Your task to perform on an android device: turn off wifi Image 0: 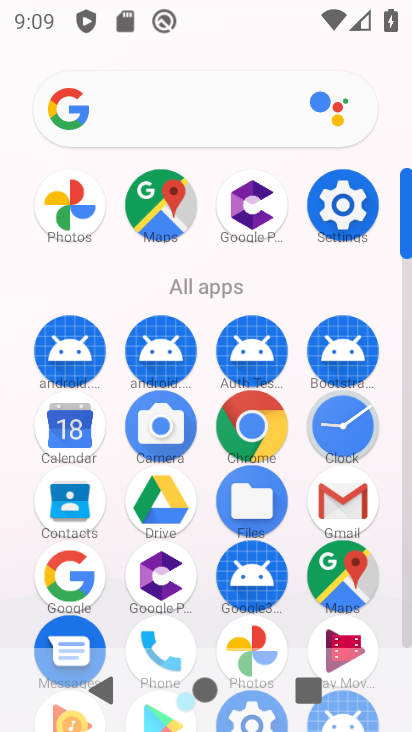
Step 0: press home button
Your task to perform on an android device: turn off wifi Image 1: 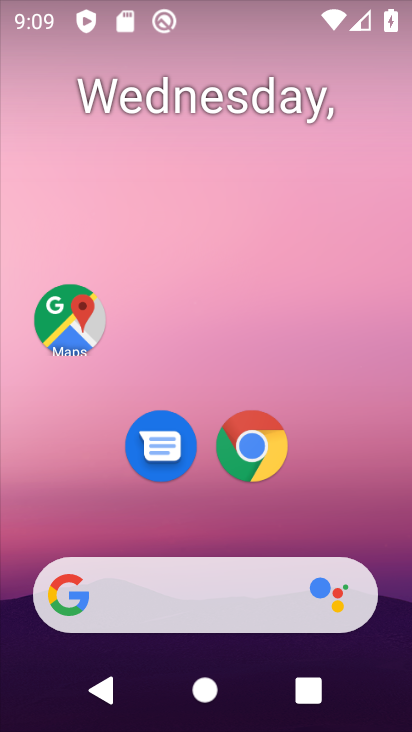
Step 1: drag from (188, 594) to (307, 138)
Your task to perform on an android device: turn off wifi Image 2: 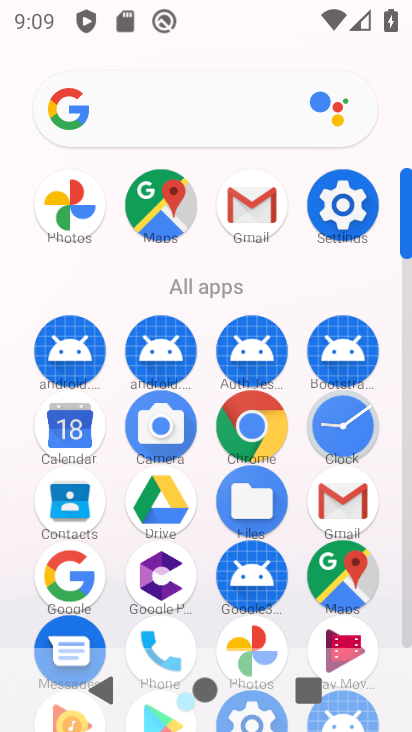
Step 2: click (350, 204)
Your task to perform on an android device: turn off wifi Image 3: 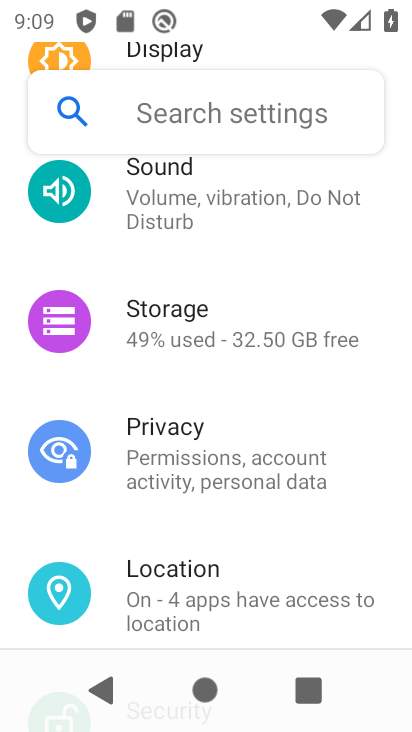
Step 3: drag from (343, 180) to (270, 583)
Your task to perform on an android device: turn off wifi Image 4: 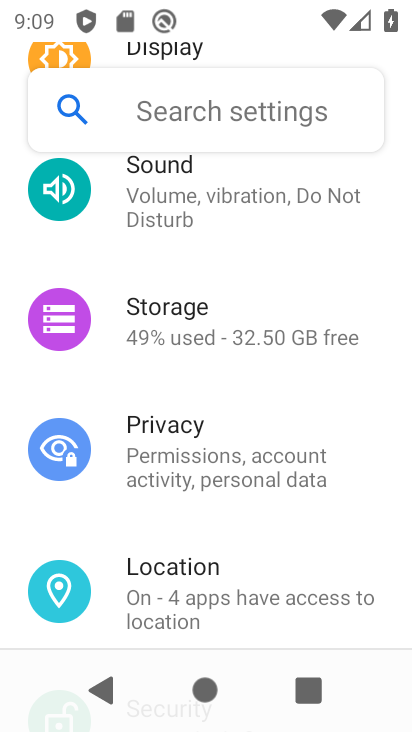
Step 4: drag from (250, 239) to (229, 636)
Your task to perform on an android device: turn off wifi Image 5: 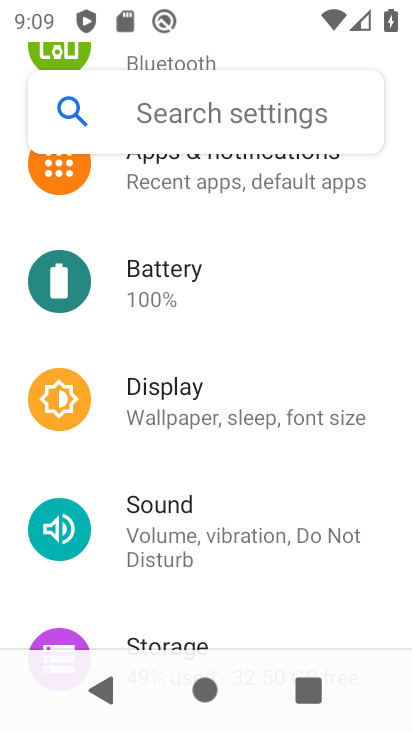
Step 5: drag from (259, 241) to (248, 679)
Your task to perform on an android device: turn off wifi Image 6: 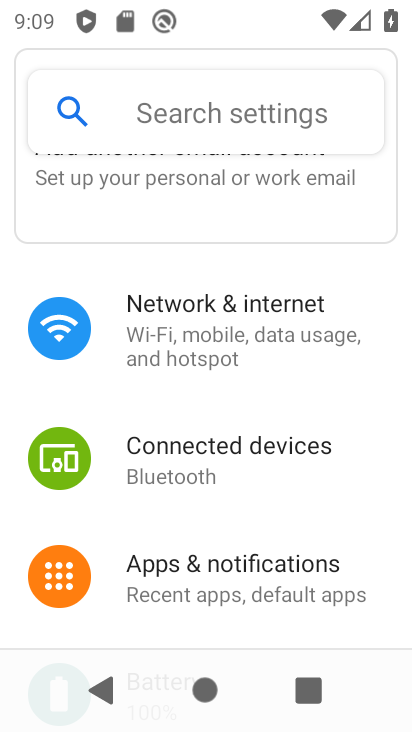
Step 6: click (255, 328)
Your task to perform on an android device: turn off wifi Image 7: 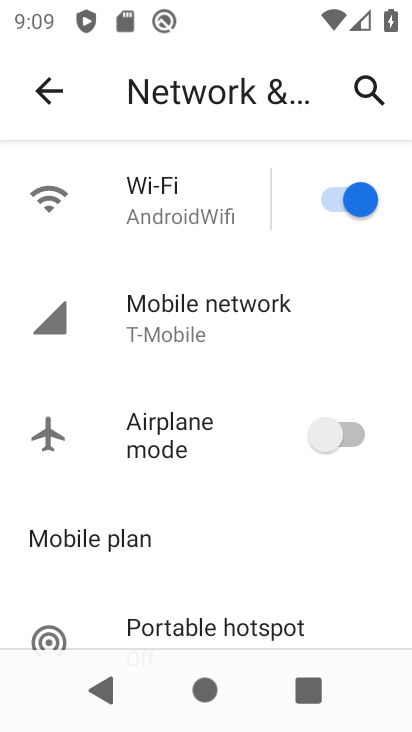
Step 7: click (336, 195)
Your task to perform on an android device: turn off wifi Image 8: 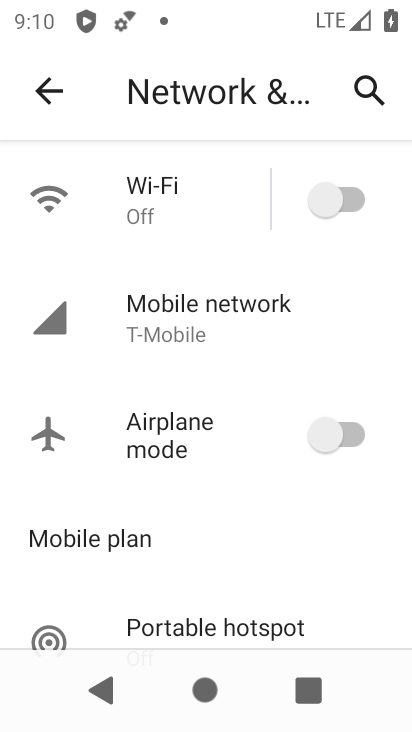
Step 8: task complete